Your task to perform on an android device: Go to Maps Image 0: 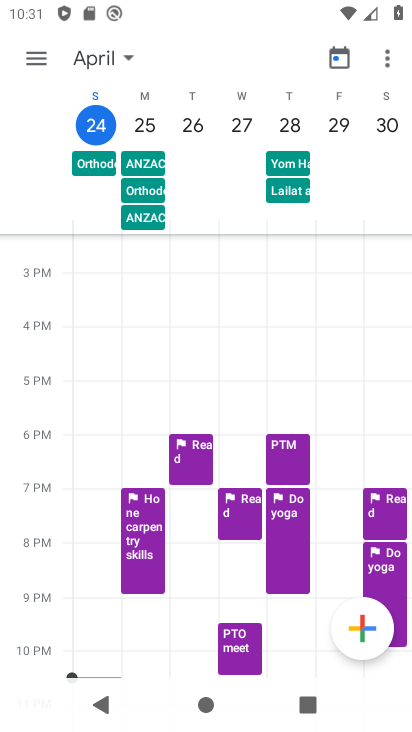
Step 0: press home button
Your task to perform on an android device: Go to Maps Image 1: 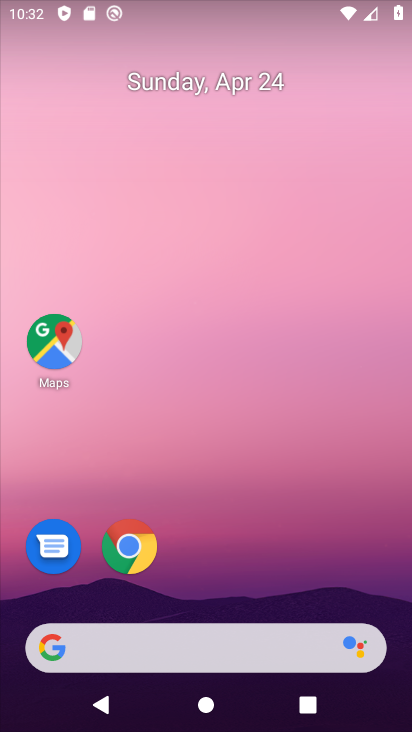
Step 1: click (60, 340)
Your task to perform on an android device: Go to Maps Image 2: 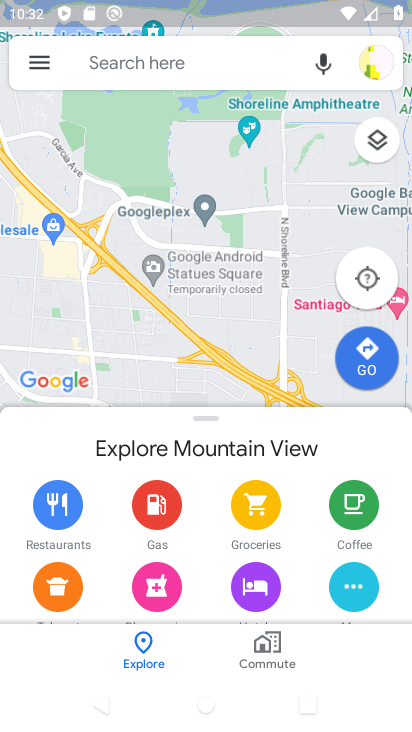
Step 2: task complete